Your task to perform on an android device: When is my next meeting? Image 0: 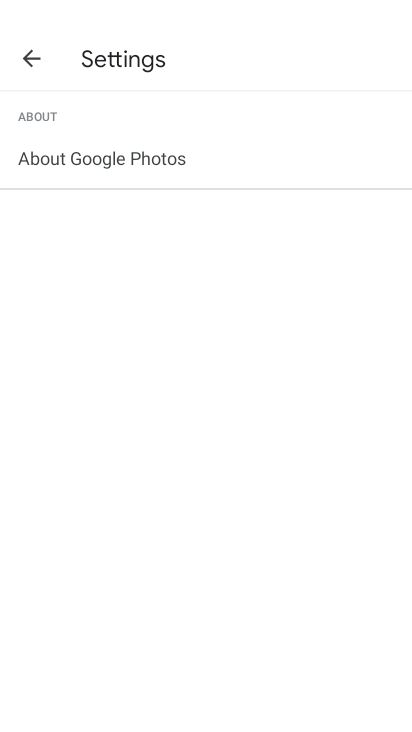
Step 0: press home button
Your task to perform on an android device: When is my next meeting? Image 1: 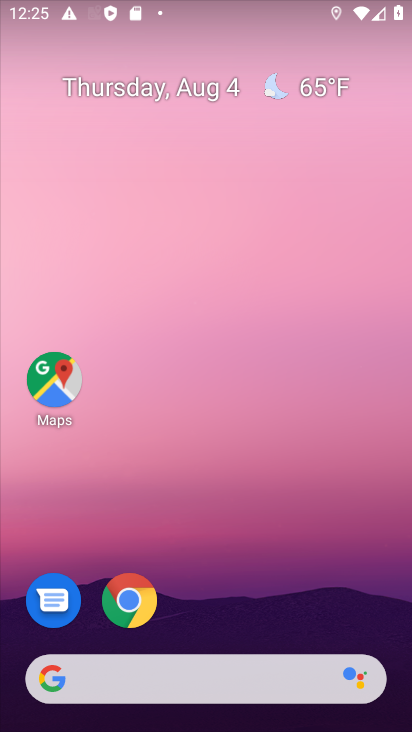
Step 1: drag from (229, 625) to (269, 4)
Your task to perform on an android device: When is my next meeting? Image 2: 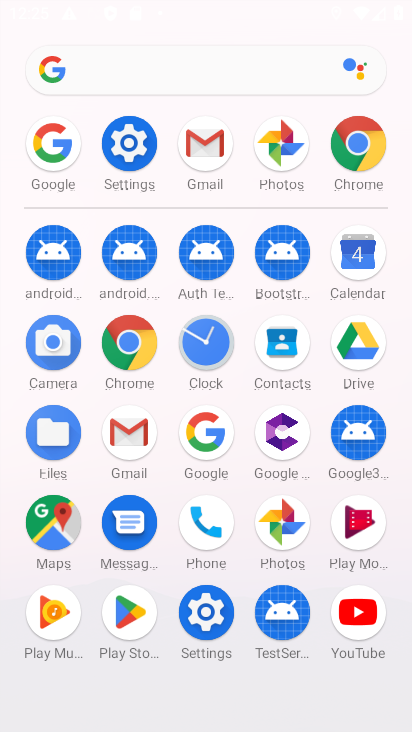
Step 2: click (343, 280)
Your task to perform on an android device: When is my next meeting? Image 3: 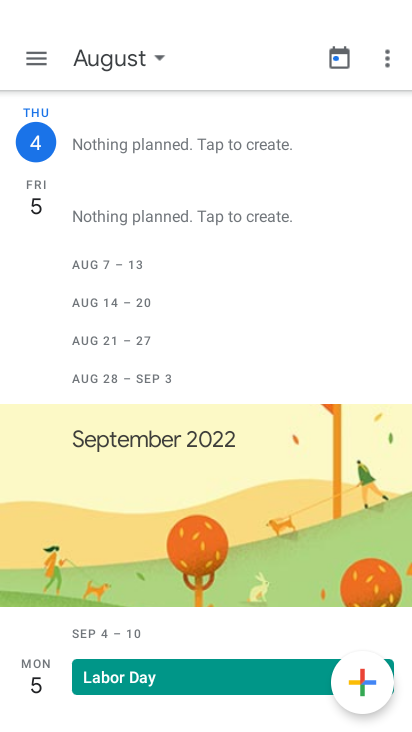
Step 3: click (37, 68)
Your task to perform on an android device: When is my next meeting? Image 4: 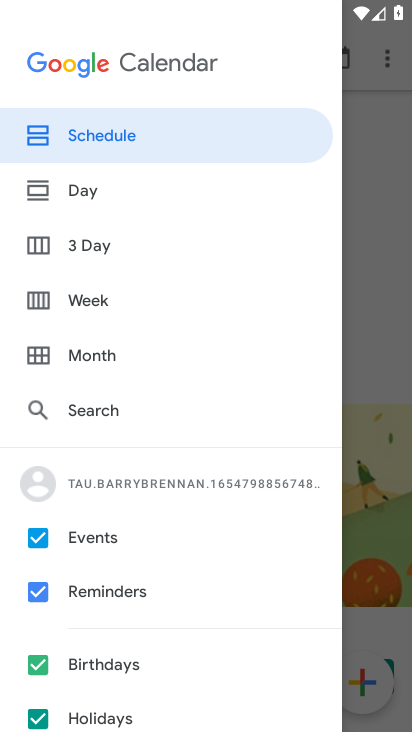
Step 4: click (71, 305)
Your task to perform on an android device: When is my next meeting? Image 5: 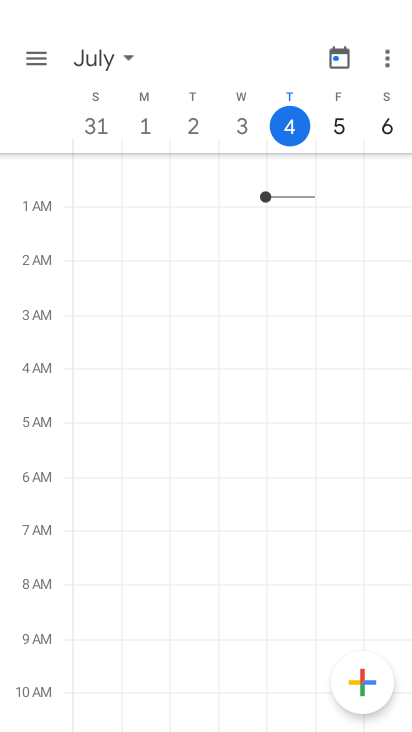
Step 5: task complete